Your task to perform on an android device: Open internet settings Image 0: 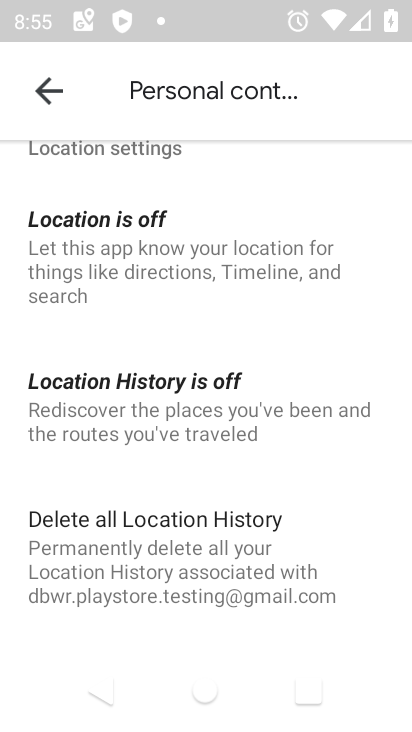
Step 0: press home button
Your task to perform on an android device: Open internet settings Image 1: 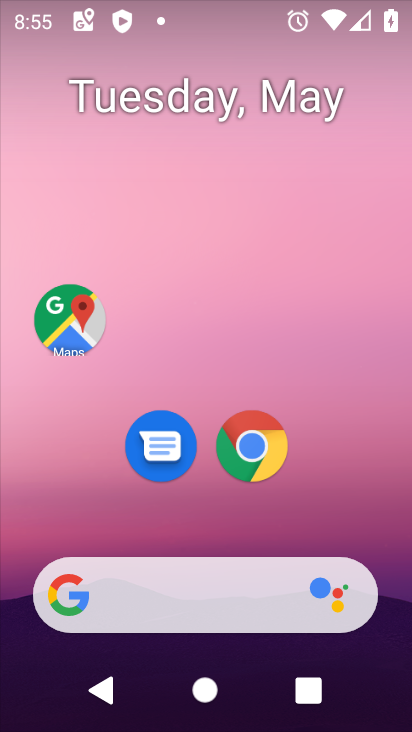
Step 1: drag from (336, 562) to (349, 1)
Your task to perform on an android device: Open internet settings Image 2: 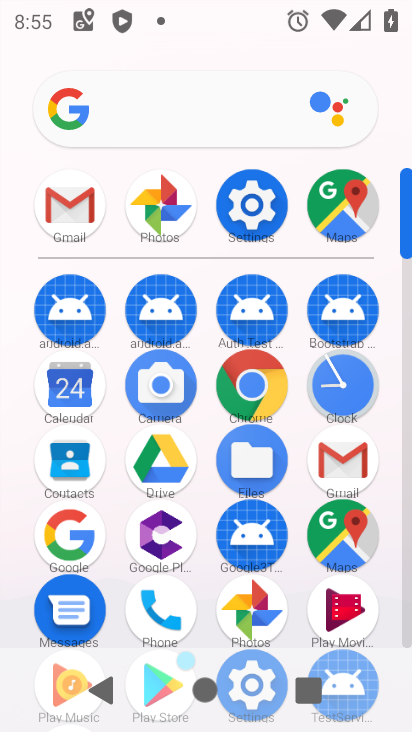
Step 2: click (257, 202)
Your task to perform on an android device: Open internet settings Image 3: 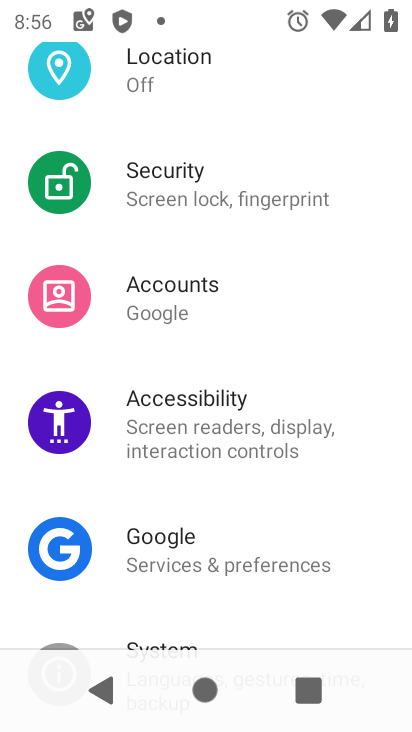
Step 3: drag from (290, 138) to (316, 718)
Your task to perform on an android device: Open internet settings Image 4: 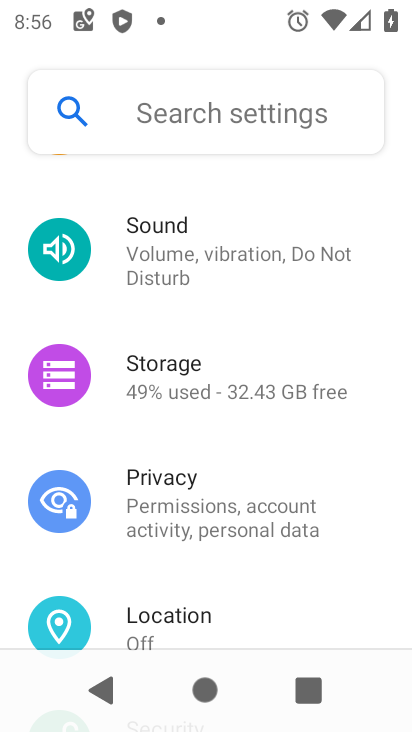
Step 4: drag from (265, 248) to (282, 529)
Your task to perform on an android device: Open internet settings Image 5: 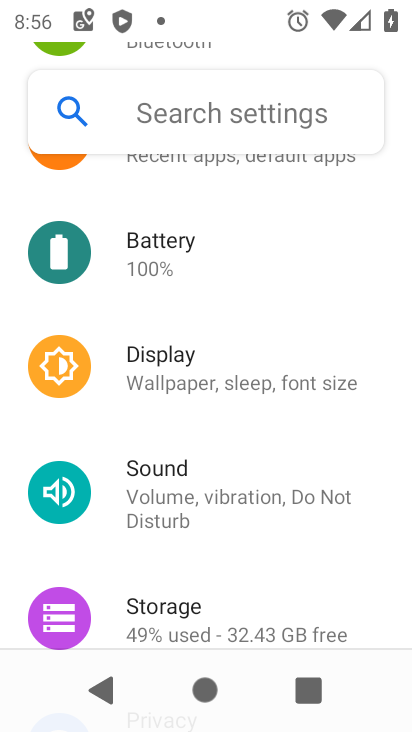
Step 5: drag from (305, 281) to (303, 591)
Your task to perform on an android device: Open internet settings Image 6: 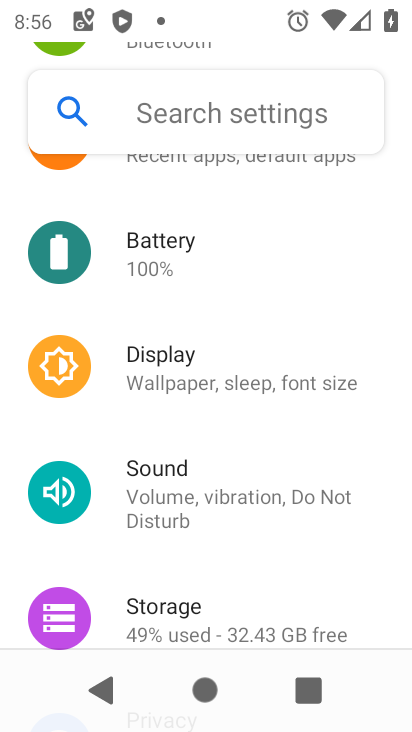
Step 6: drag from (296, 417) to (303, 531)
Your task to perform on an android device: Open internet settings Image 7: 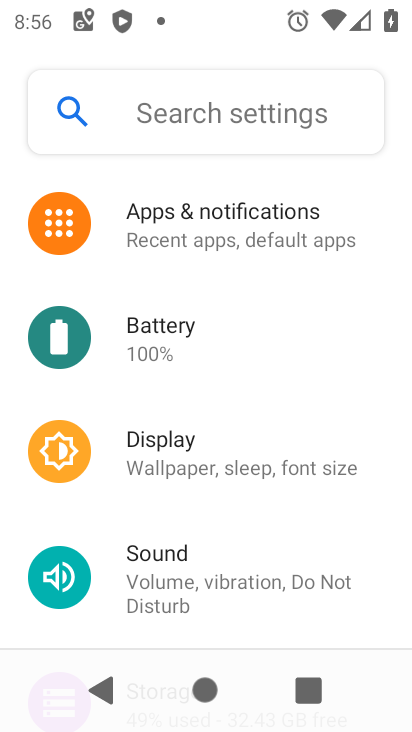
Step 7: drag from (291, 264) to (291, 599)
Your task to perform on an android device: Open internet settings Image 8: 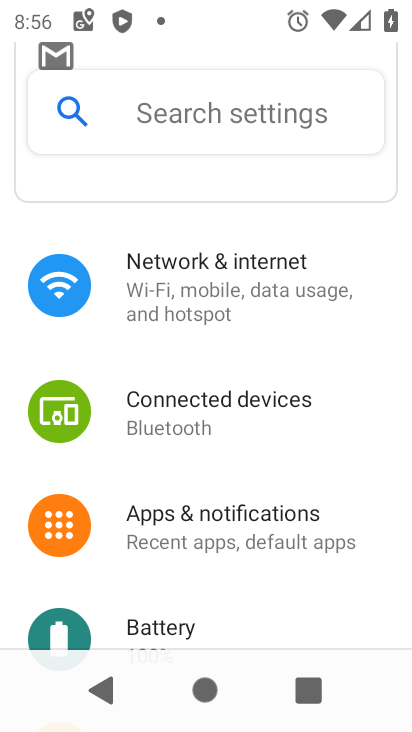
Step 8: click (185, 319)
Your task to perform on an android device: Open internet settings Image 9: 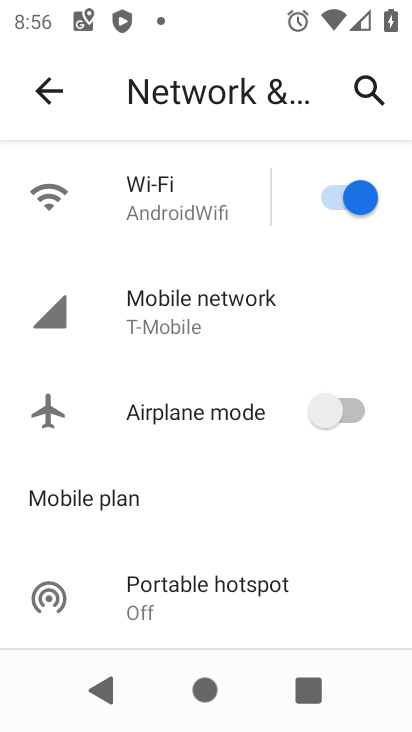
Step 9: task complete